Your task to perform on an android device: Open the phone app and click the voicemail tab. Image 0: 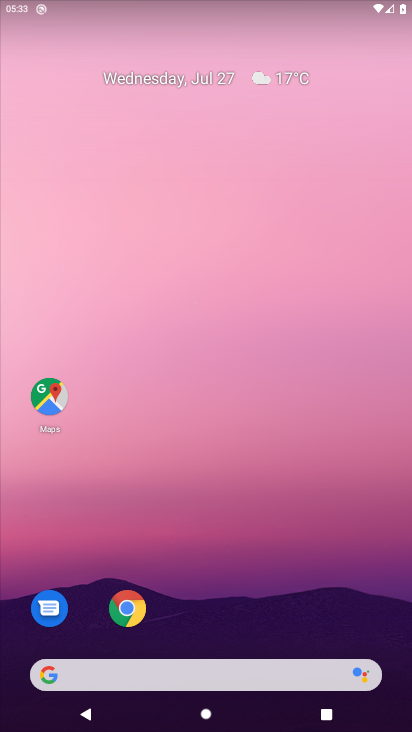
Step 0: drag from (229, 641) to (186, 72)
Your task to perform on an android device: Open the phone app and click the voicemail tab. Image 1: 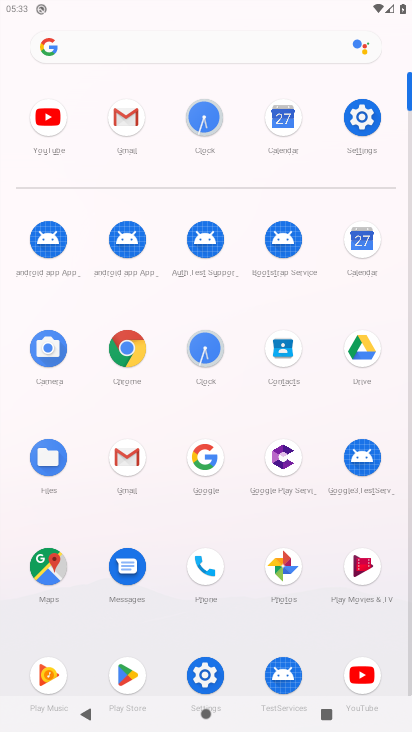
Step 1: click (199, 572)
Your task to perform on an android device: Open the phone app and click the voicemail tab. Image 2: 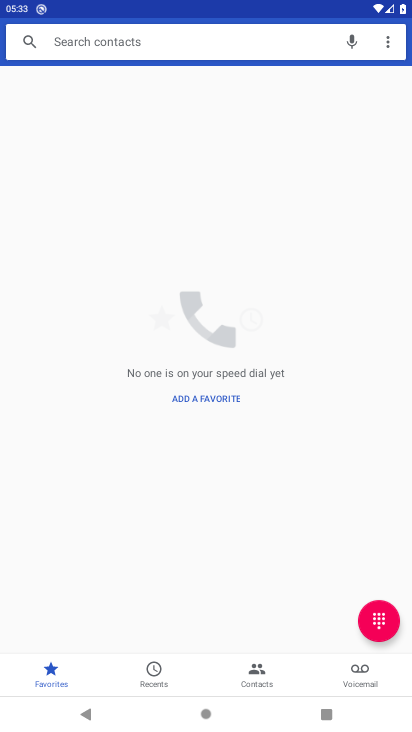
Step 2: click (359, 670)
Your task to perform on an android device: Open the phone app and click the voicemail tab. Image 3: 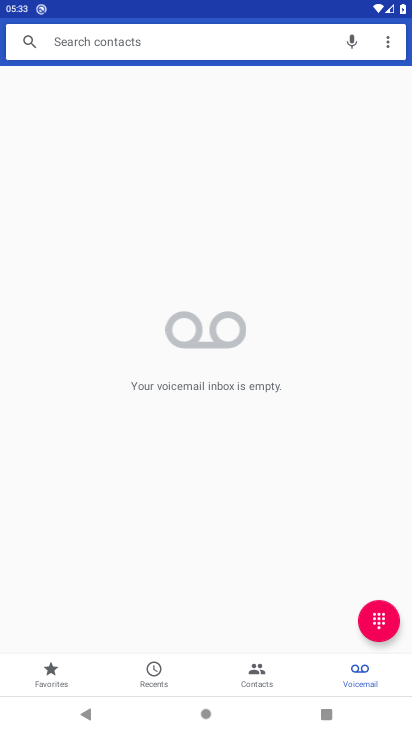
Step 3: task complete